Your task to perform on an android device: turn on notifications settings in the gmail app Image 0: 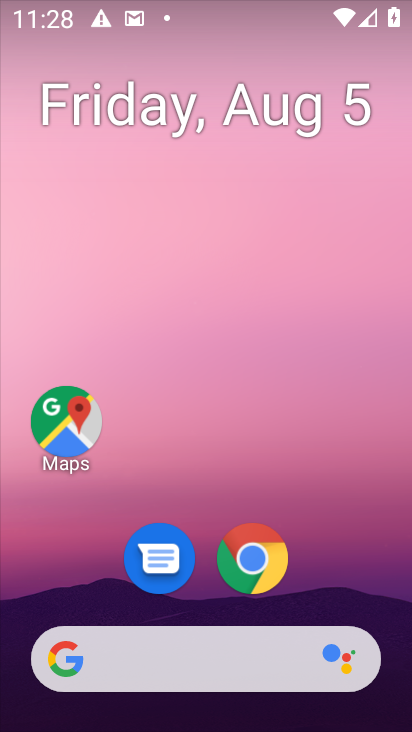
Step 0: press home button
Your task to perform on an android device: turn on notifications settings in the gmail app Image 1: 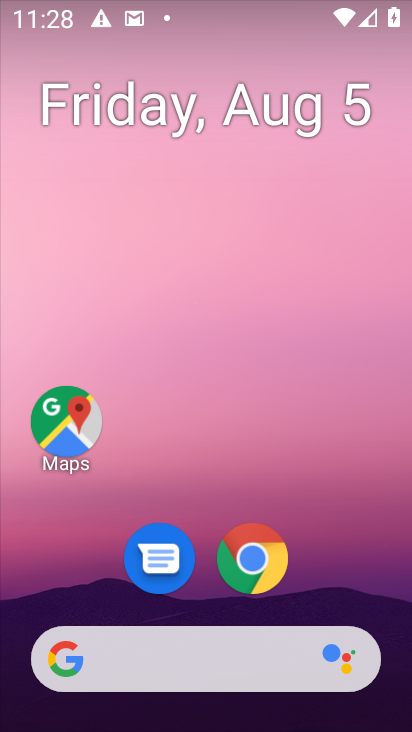
Step 1: drag from (339, 599) to (351, 252)
Your task to perform on an android device: turn on notifications settings in the gmail app Image 2: 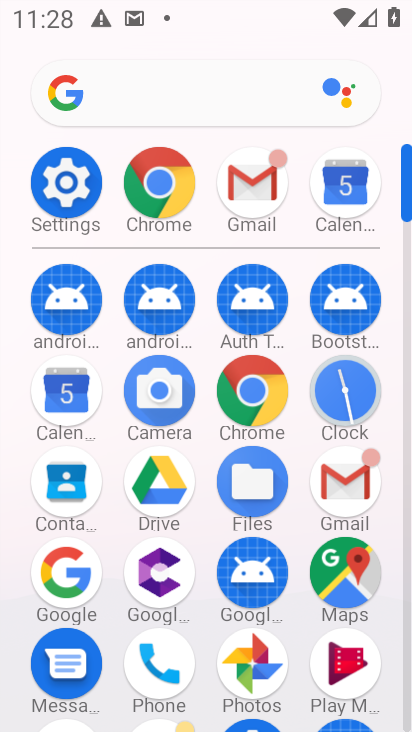
Step 2: click (336, 475)
Your task to perform on an android device: turn on notifications settings in the gmail app Image 3: 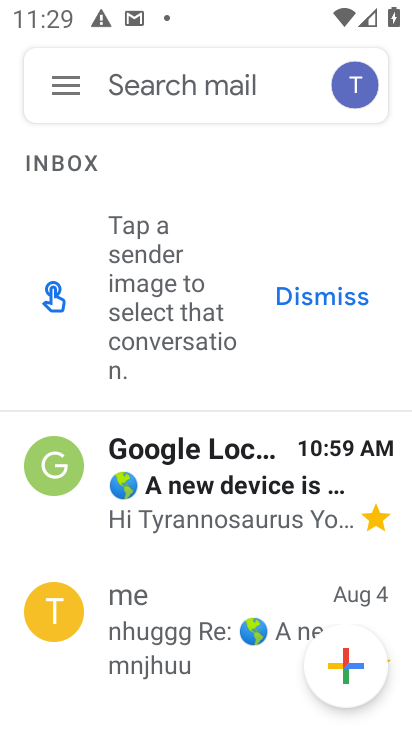
Step 3: click (71, 81)
Your task to perform on an android device: turn on notifications settings in the gmail app Image 4: 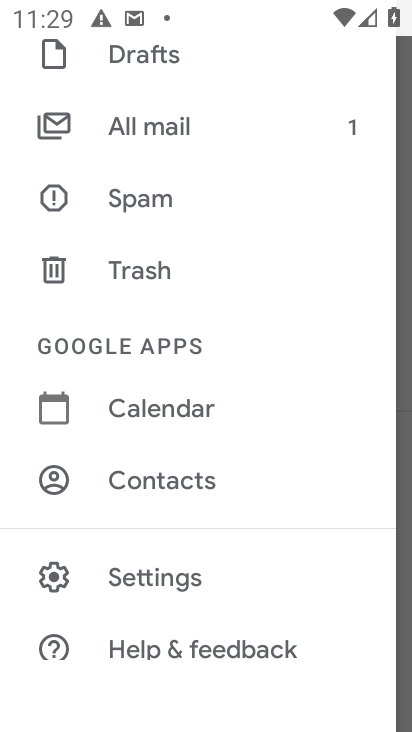
Step 4: click (212, 577)
Your task to perform on an android device: turn on notifications settings in the gmail app Image 5: 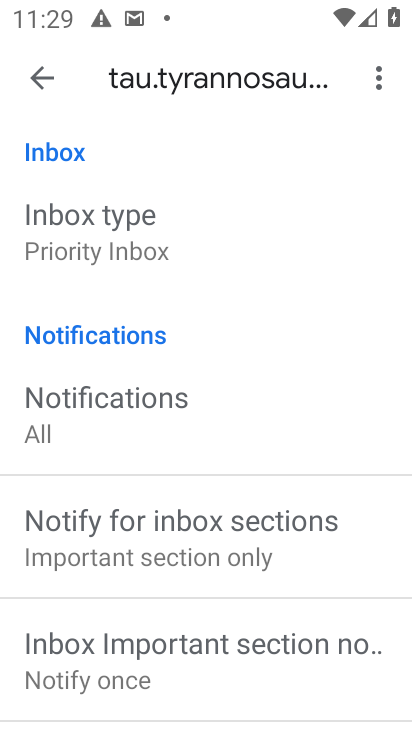
Step 5: drag from (258, 544) to (275, 466)
Your task to perform on an android device: turn on notifications settings in the gmail app Image 6: 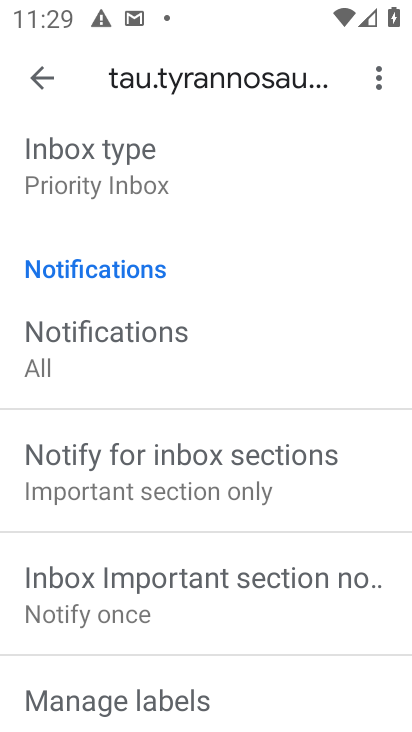
Step 6: drag from (287, 587) to (320, 411)
Your task to perform on an android device: turn on notifications settings in the gmail app Image 7: 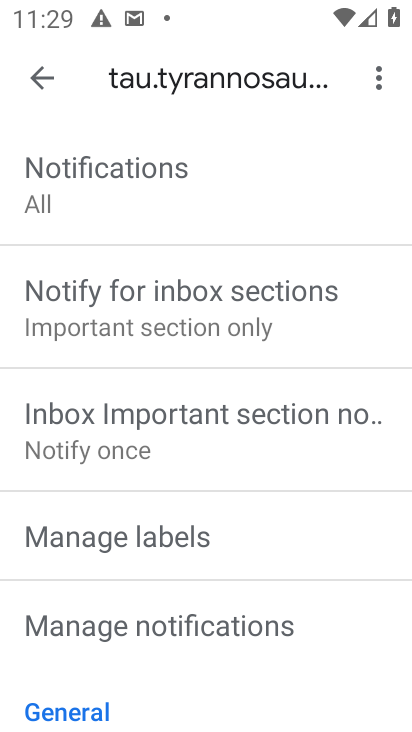
Step 7: drag from (308, 537) to (321, 412)
Your task to perform on an android device: turn on notifications settings in the gmail app Image 8: 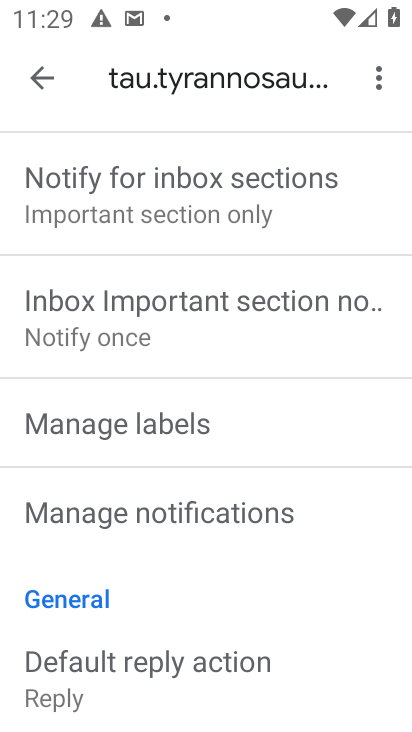
Step 8: drag from (335, 530) to (329, 426)
Your task to perform on an android device: turn on notifications settings in the gmail app Image 9: 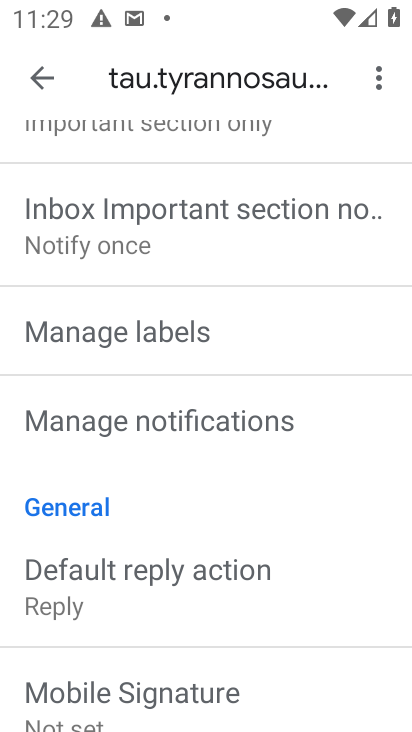
Step 9: click (329, 427)
Your task to perform on an android device: turn on notifications settings in the gmail app Image 10: 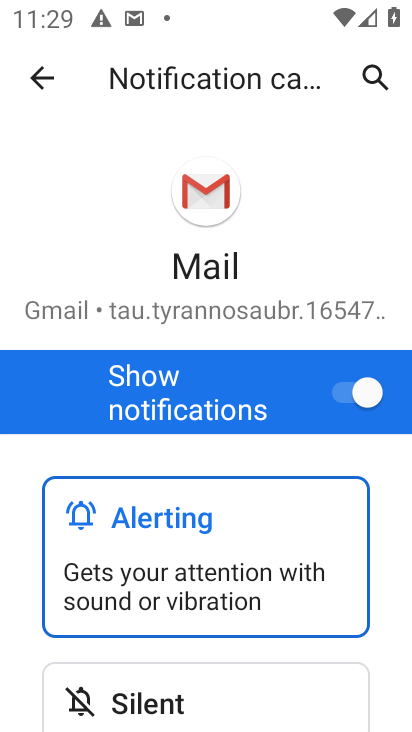
Step 10: task complete